Your task to perform on an android device: Show the shopping cart on amazon. Search for "razer deathadder" on amazon, select the first entry, and add it to the cart. Image 0: 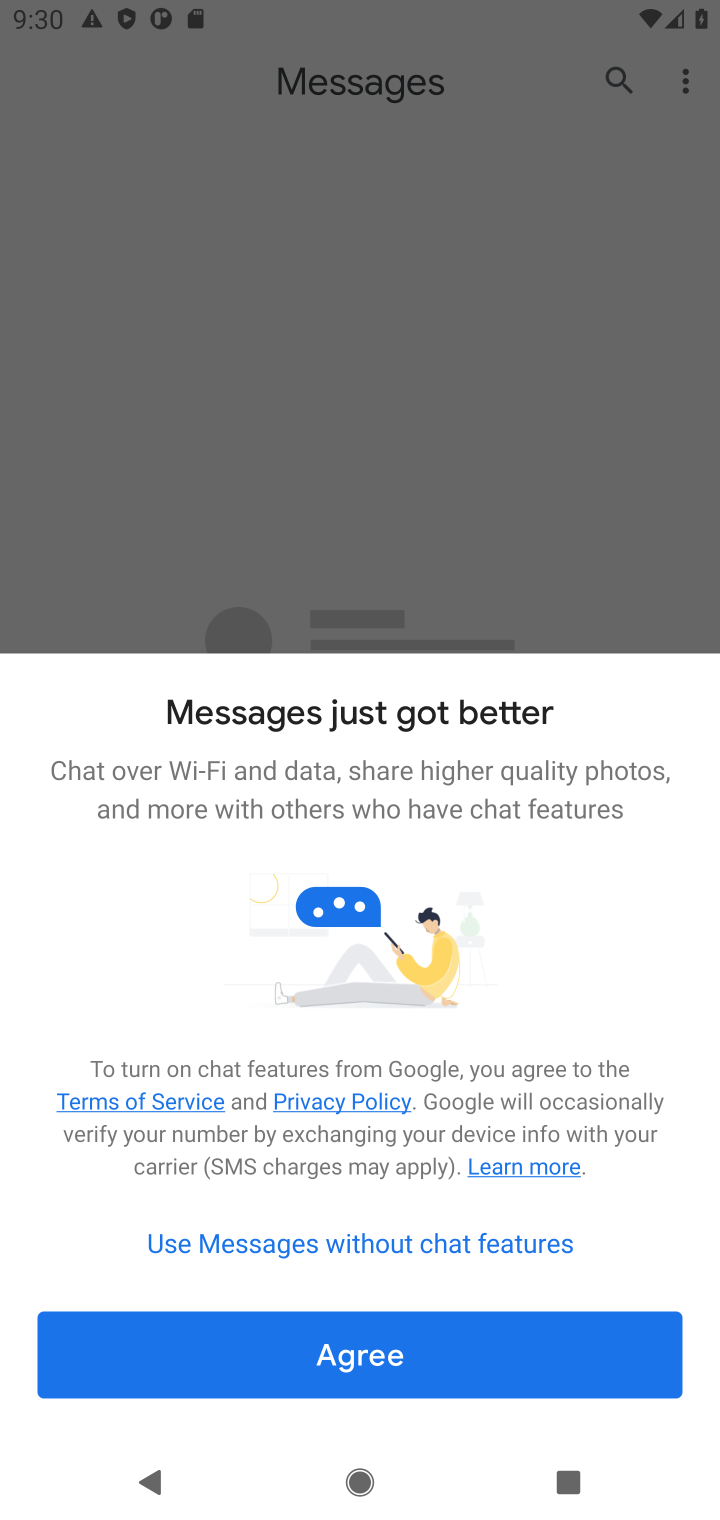
Step 0: press home button
Your task to perform on an android device: Show the shopping cart on amazon. Search for "razer deathadder" on amazon, select the first entry, and add it to the cart. Image 1: 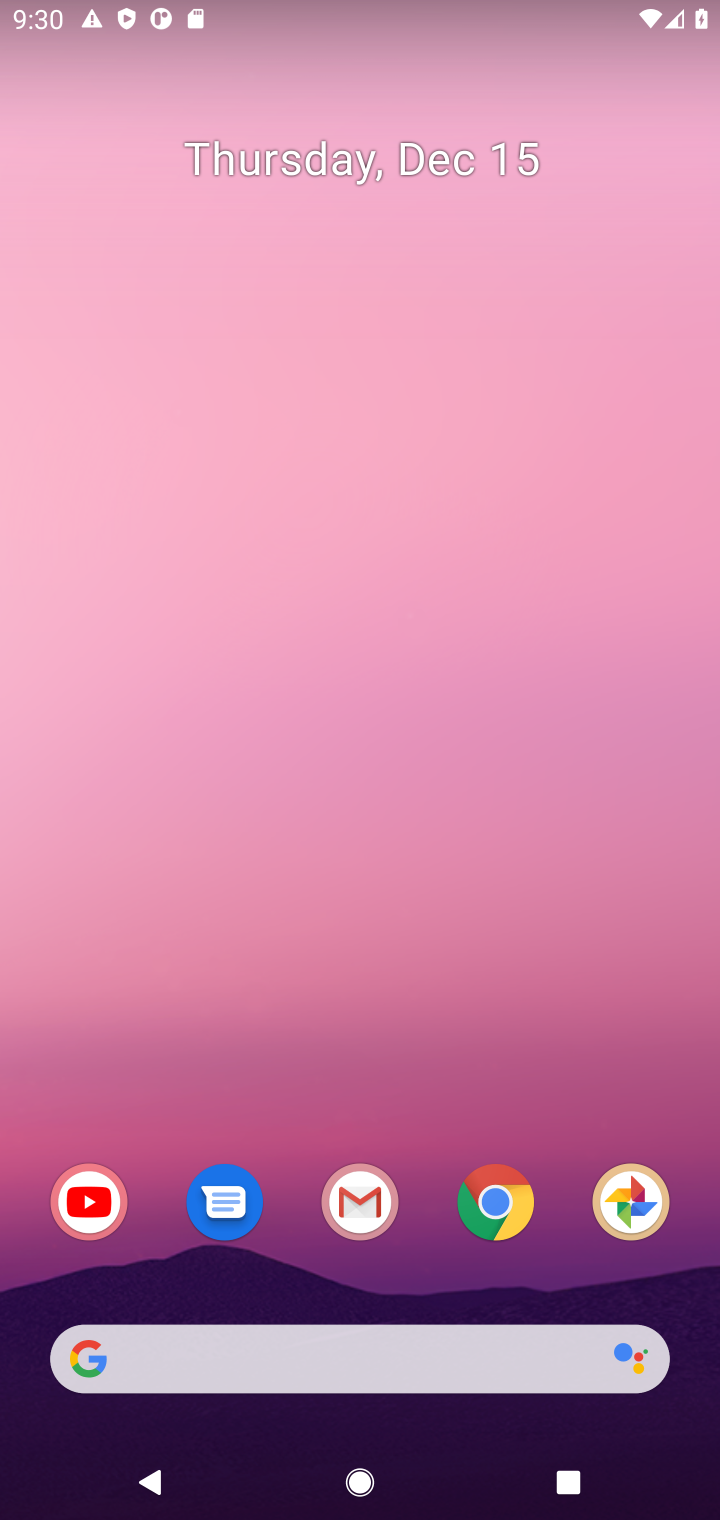
Step 1: click (497, 1199)
Your task to perform on an android device: Show the shopping cart on amazon. Search for "razer deathadder" on amazon, select the first entry, and add it to the cart. Image 2: 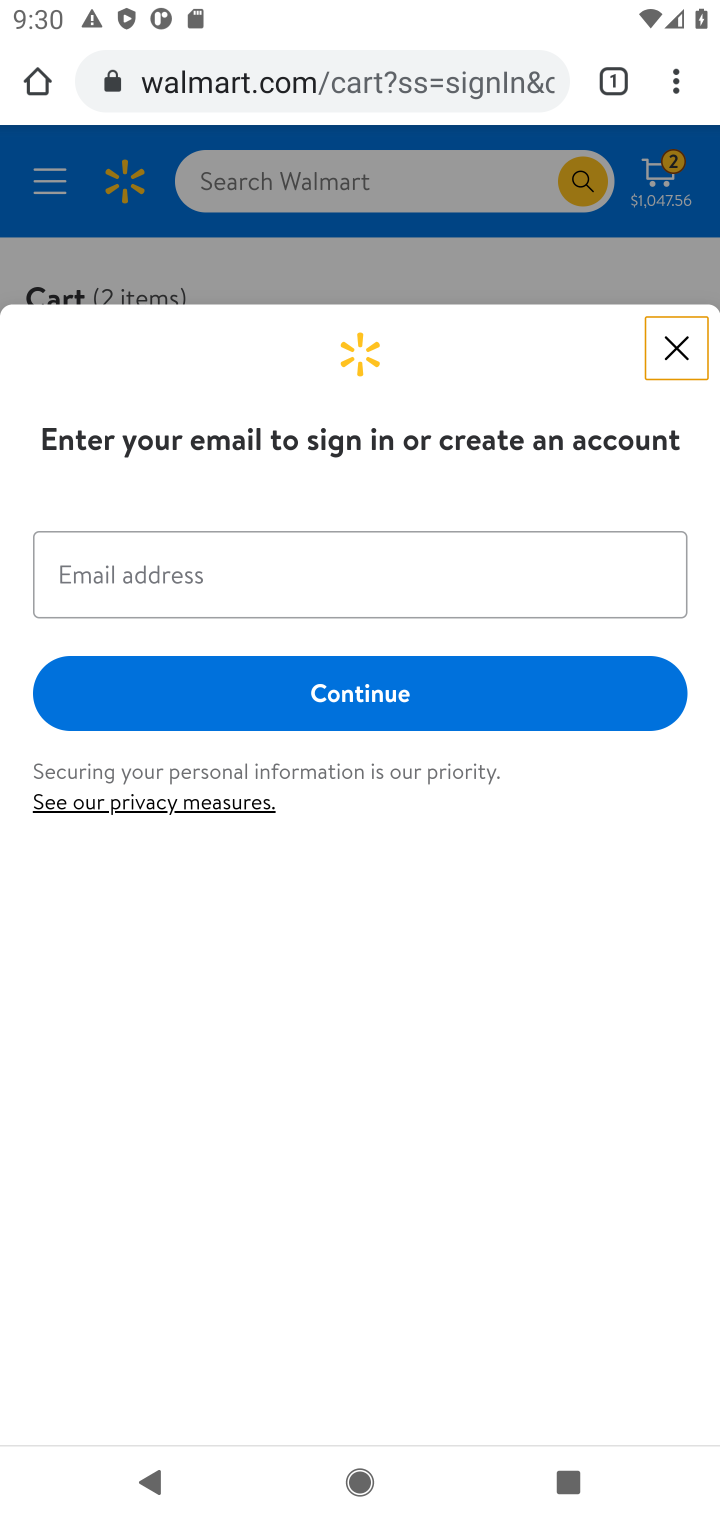
Step 2: click (303, 89)
Your task to perform on an android device: Show the shopping cart on amazon. Search for "razer deathadder" on amazon, select the first entry, and add it to the cart. Image 3: 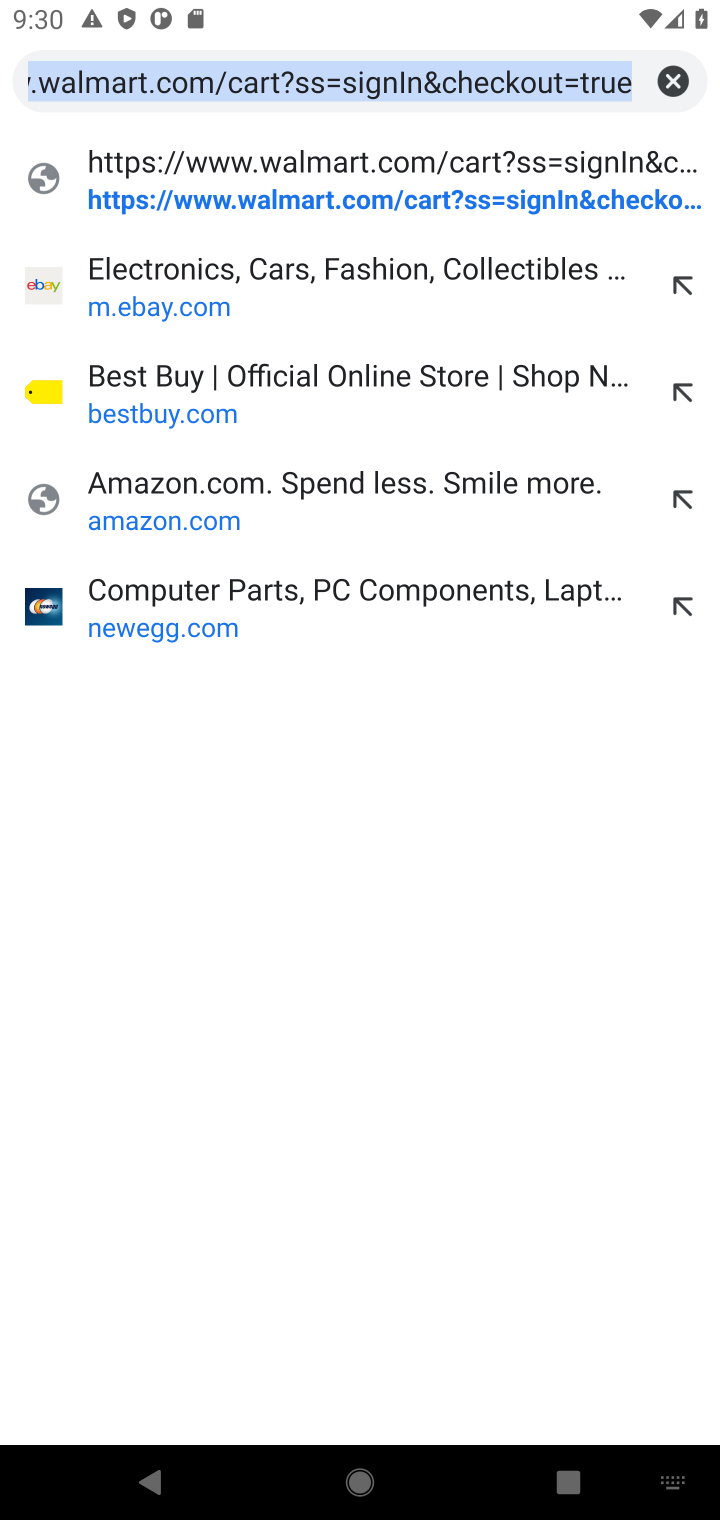
Step 3: click (119, 488)
Your task to perform on an android device: Show the shopping cart on amazon. Search for "razer deathadder" on amazon, select the first entry, and add it to the cart. Image 4: 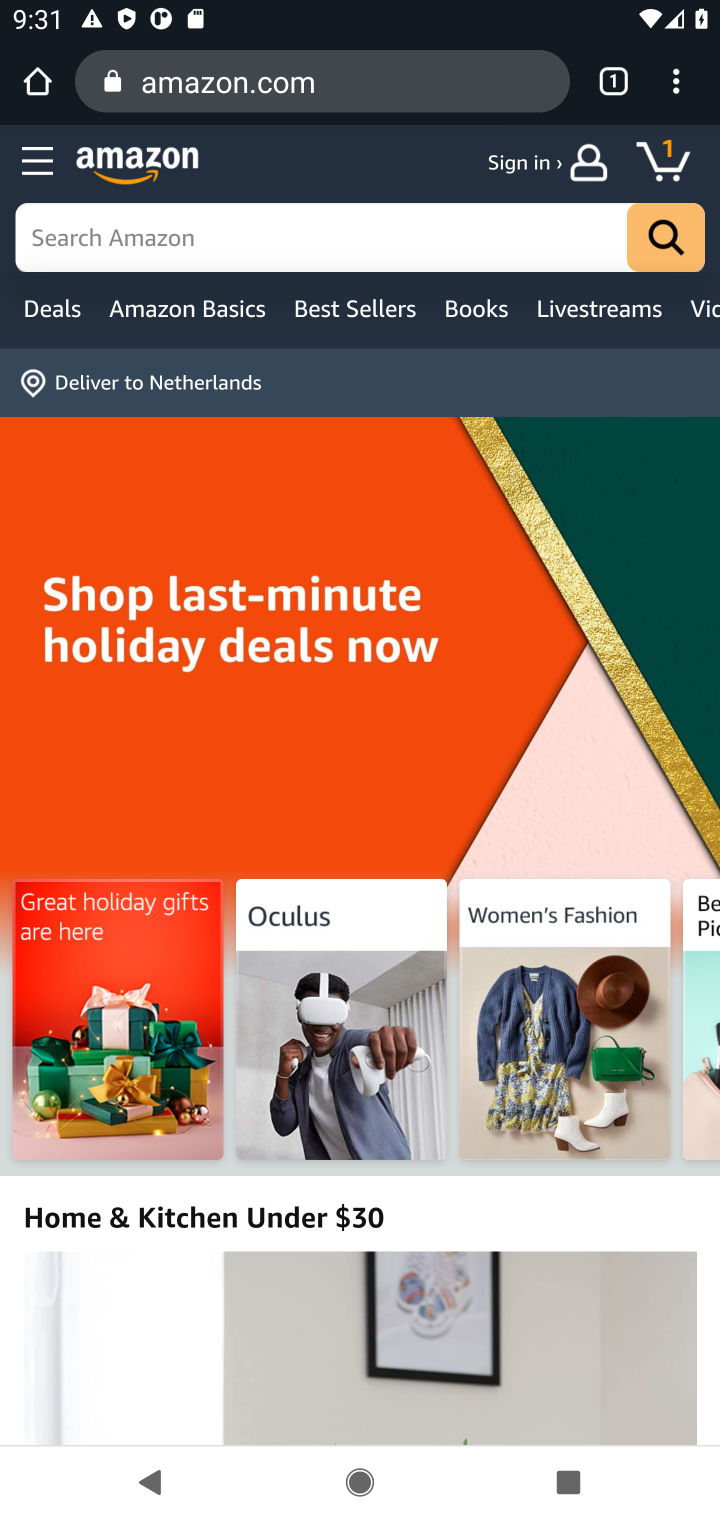
Step 4: click (667, 162)
Your task to perform on an android device: Show the shopping cart on amazon. Search for "razer deathadder" on amazon, select the first entry, and add it to the cart. Image 5: 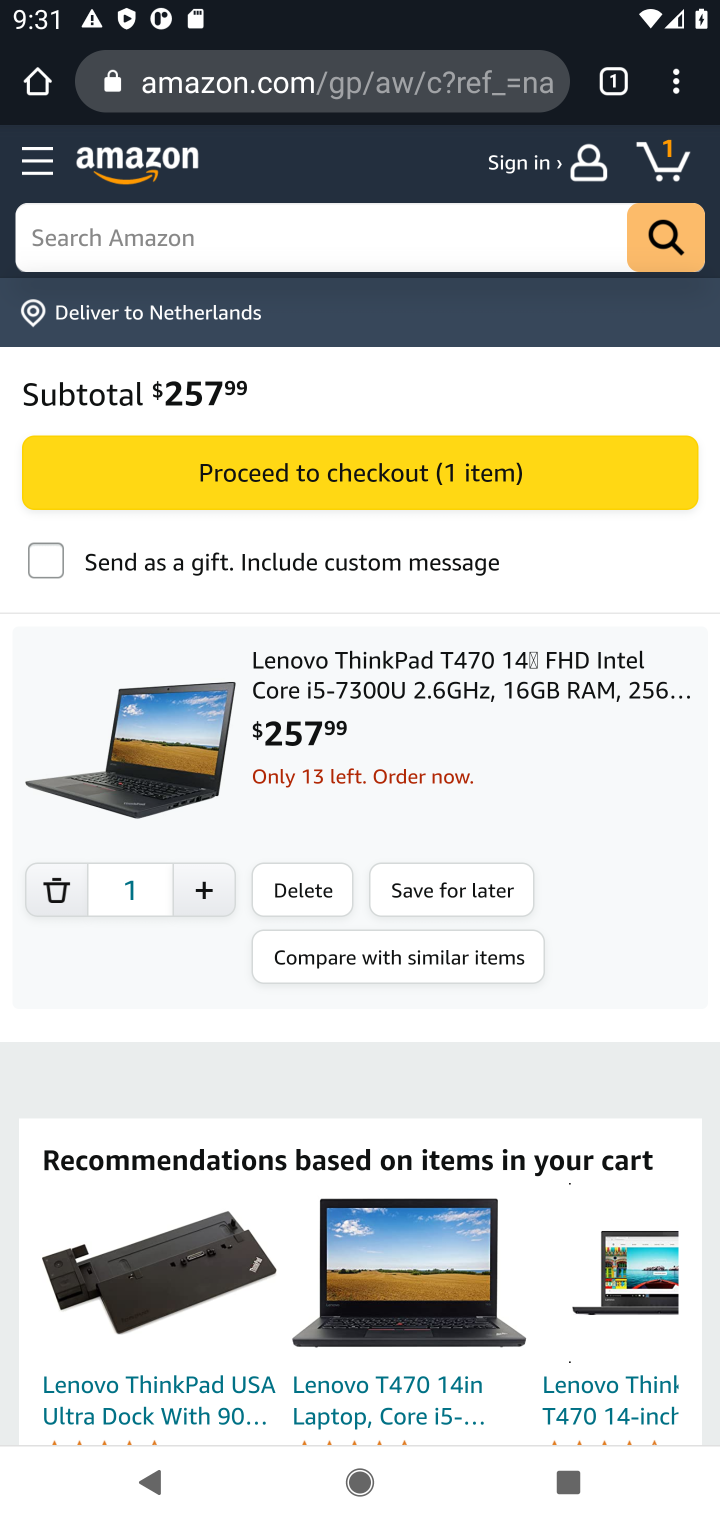
Step 5: click (249, 224)
Your task to perform on an android device: Show the shopping cart on amazon. Search for "razer deathadder" on amazon, select the first entry, and add it to the cart. Image 6: 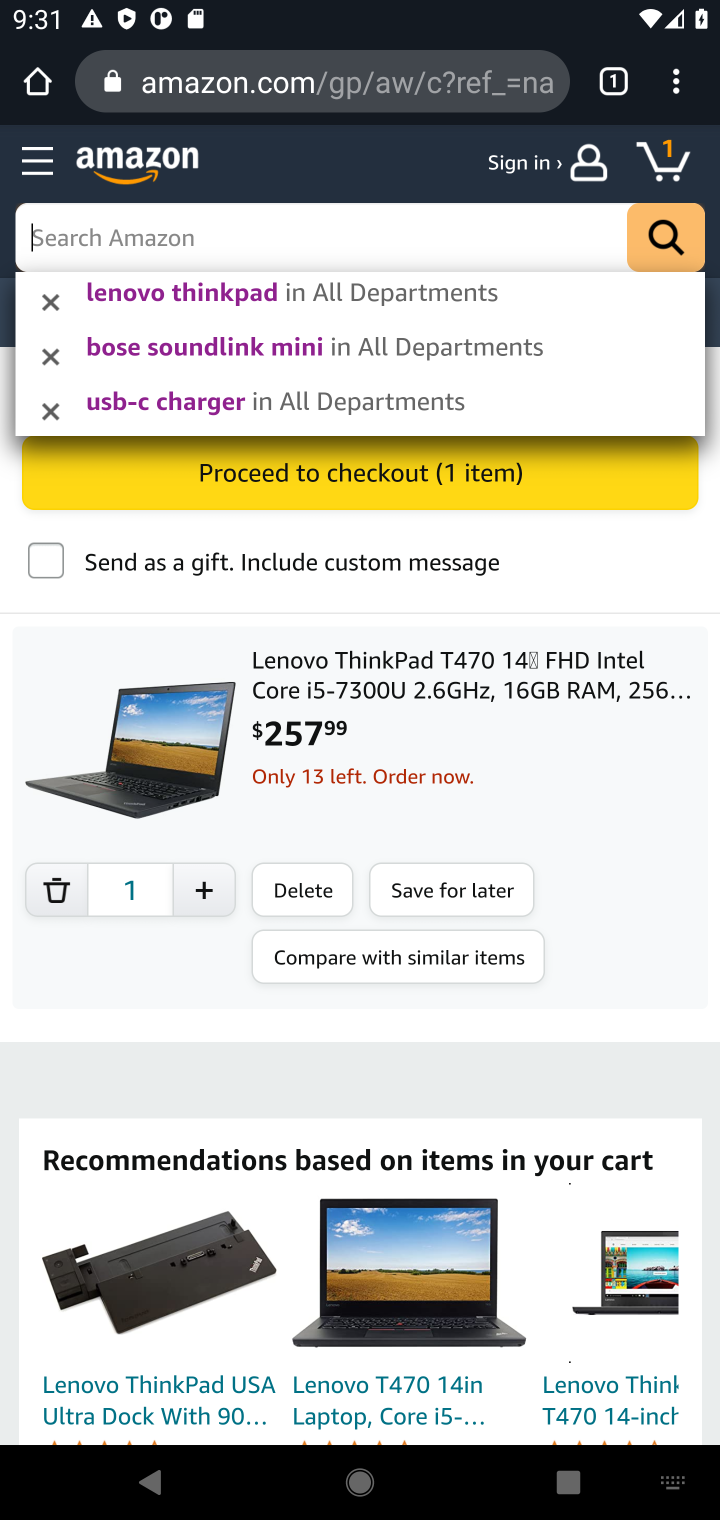
Step 6: type "razer deathadder"
Your task to perform on an android device: Show the shopping cart on amazon. Search for "razer deathadder" on amazon, select the first entry, and add it to the cart. Image 7: 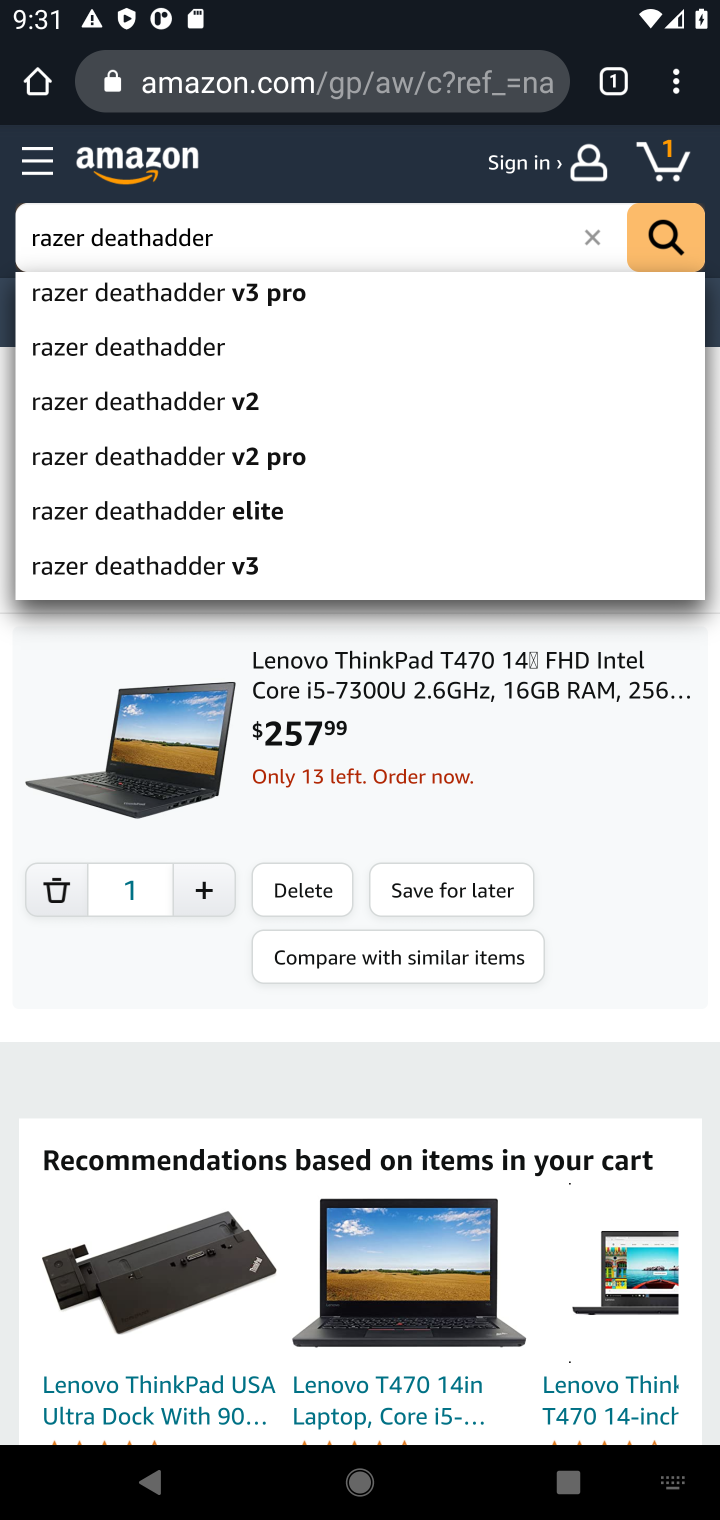
Step 7: click (98, 361)
Your task to perform on an android device: Show the shopping cart on amazon. Search for "razer deathadder" on amazon, select the first entry, and add it to the cart. Image 8: 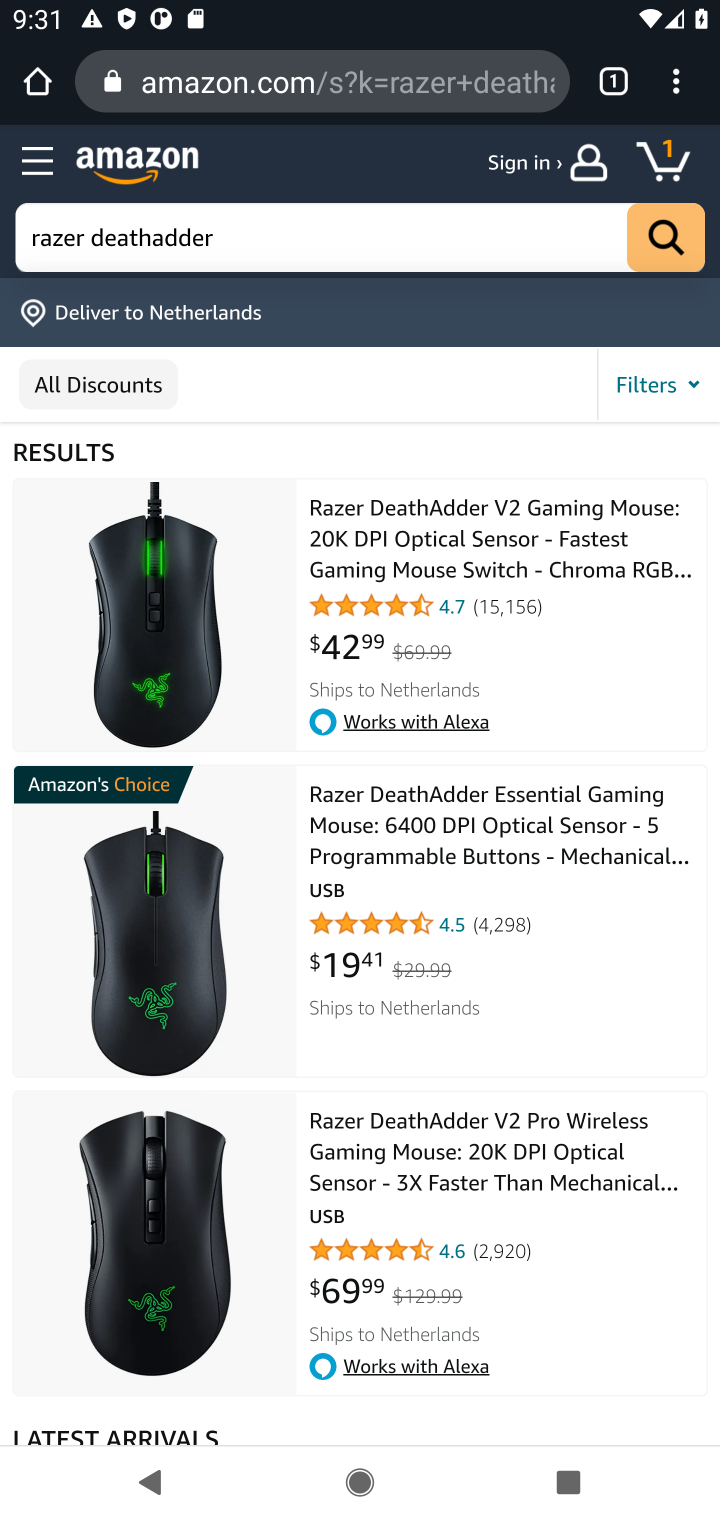
Step 8: click (389, 561)
Your task to perform on an android device: Show the shopping cart on amazon. Search for "razer deathadder" on amazon, select the first entry, and add it to the cart. Image 9: 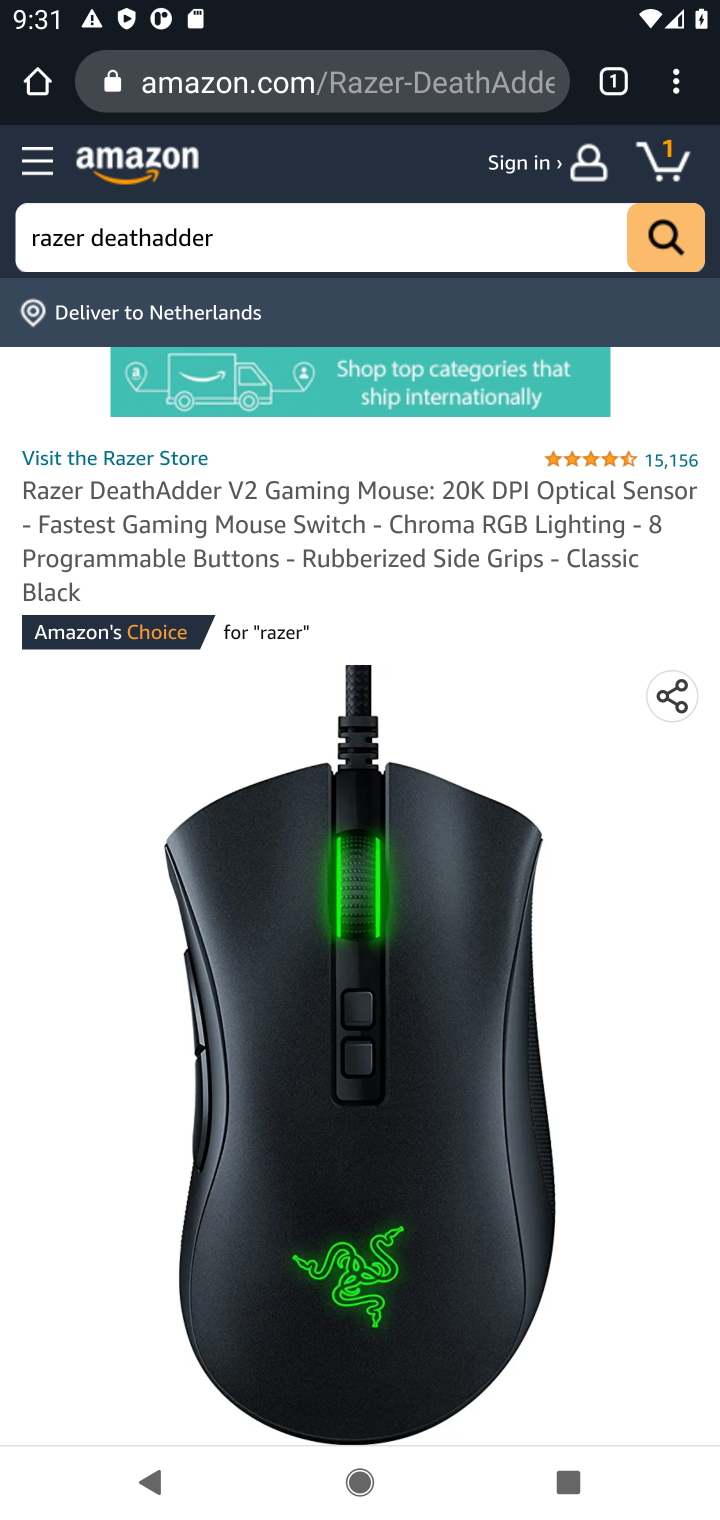
Step 9: drag from (328, 851) to (327, 589)
Your task to perform on an android device: Show the shopping cart on amazon. Search for "razer deathadder" on amazon, select the first entry, and add it to the cart. Image 10: 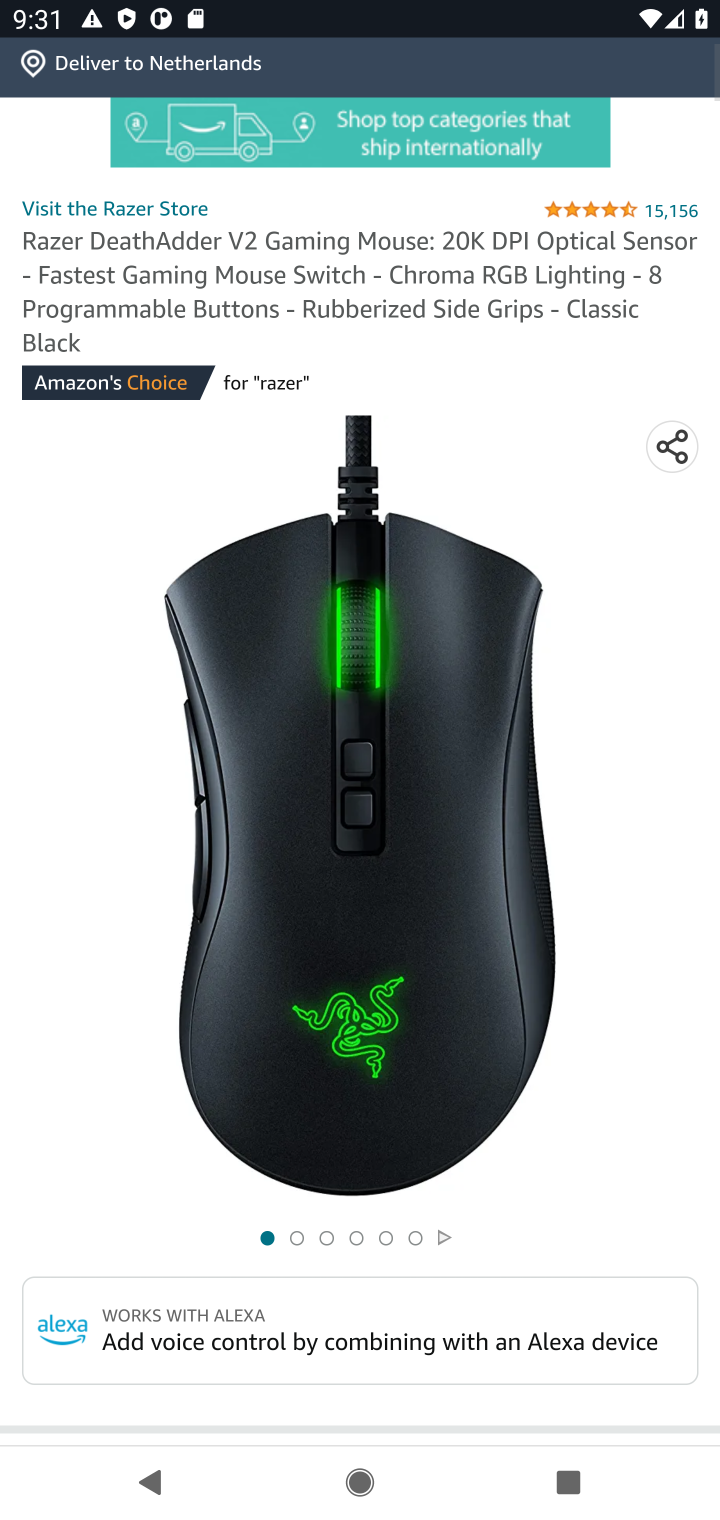
Step 10: drag from (310, 967) to (325, 527)
Your task to perform on an android device: Show the shopping cart on amazon. Search for "razer deathadder" on amazon, select the first entry, and add it to the cart. Image 11: 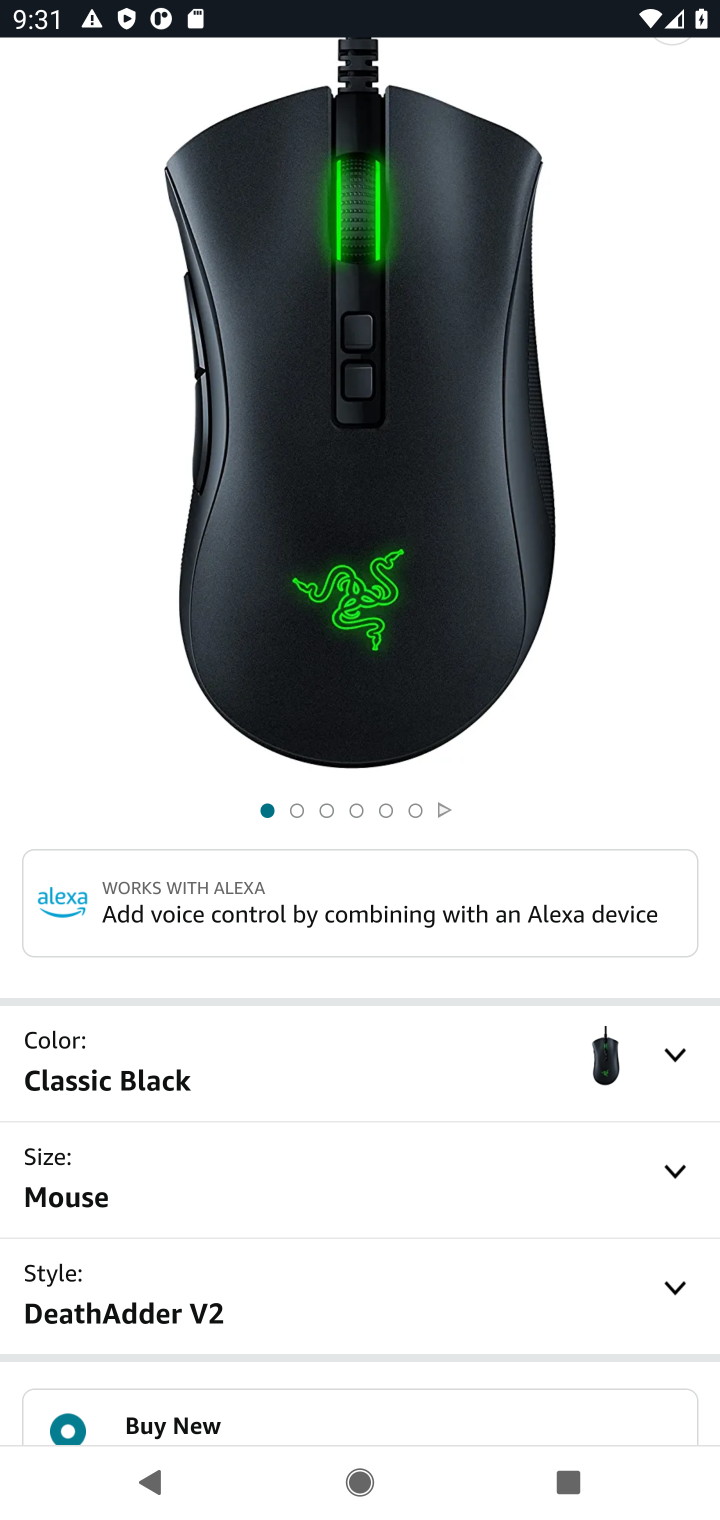
Step 11: drag from (310, 968) to (314, 520)
Your task to perform on an android device: Show the shopping cart on amazon. Search for "razer deathadder" on amazon, select the first entry, and add it to the cart. Image 12: 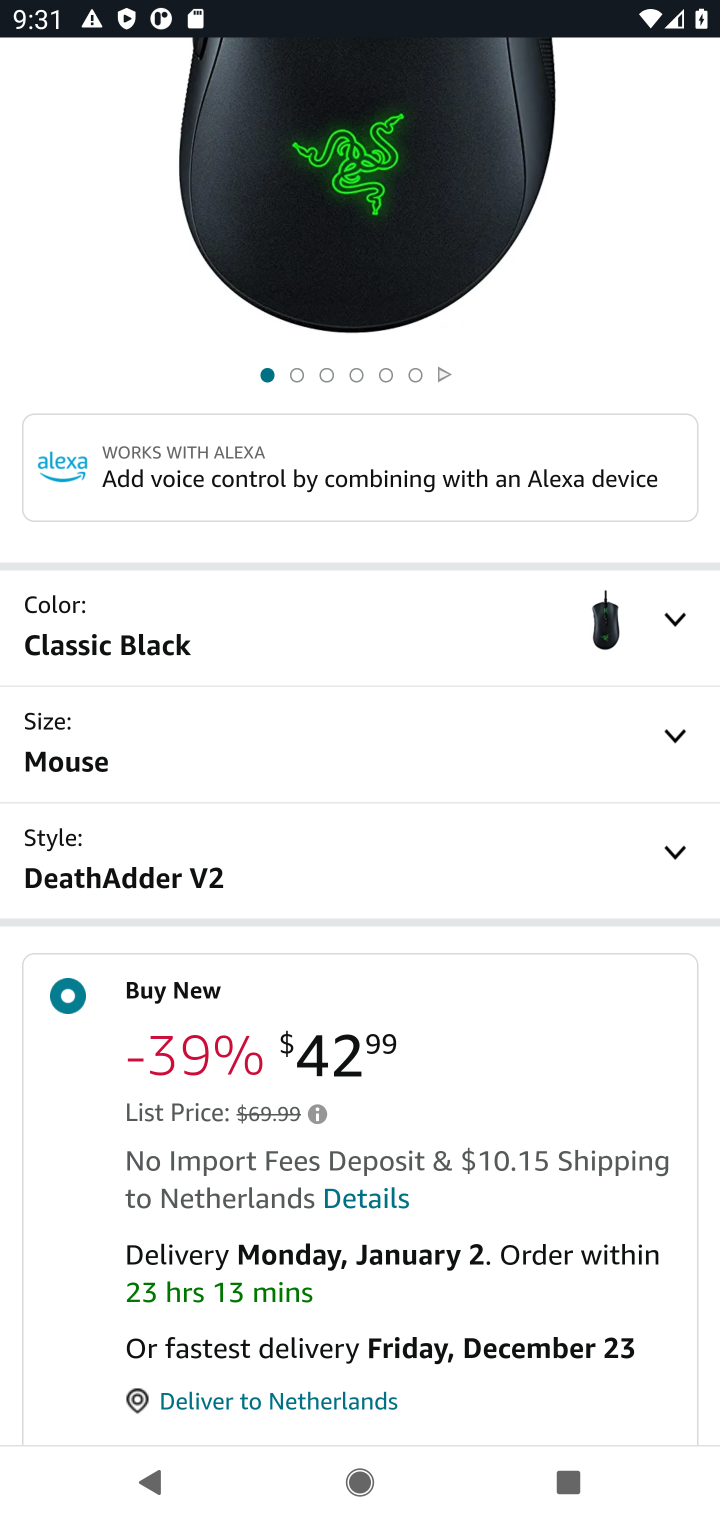
Step 12: drag from (288, 1017) to (323, 501)
Your task to perform on an android device: Show the shopping cart on amazon. Search for "razer deathadder" on amazon, select the first entry, and add it to the cart. Image 13: 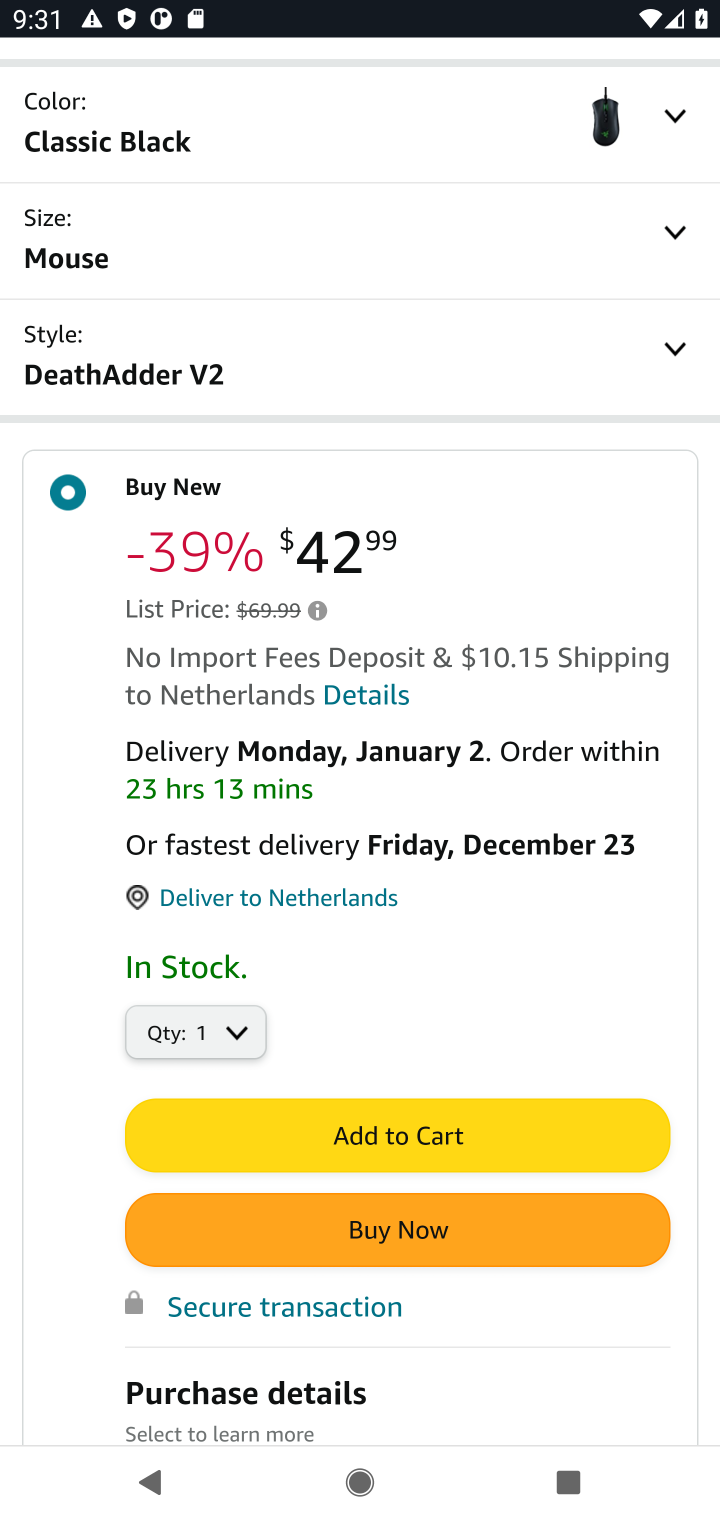
Step 13: click (338, 1133)
Your task to perform on an android device: Show the shopping cart on amazon. Search for "razer deathadder" on amazon, select the first entry, and add it to the cart. Image 14: 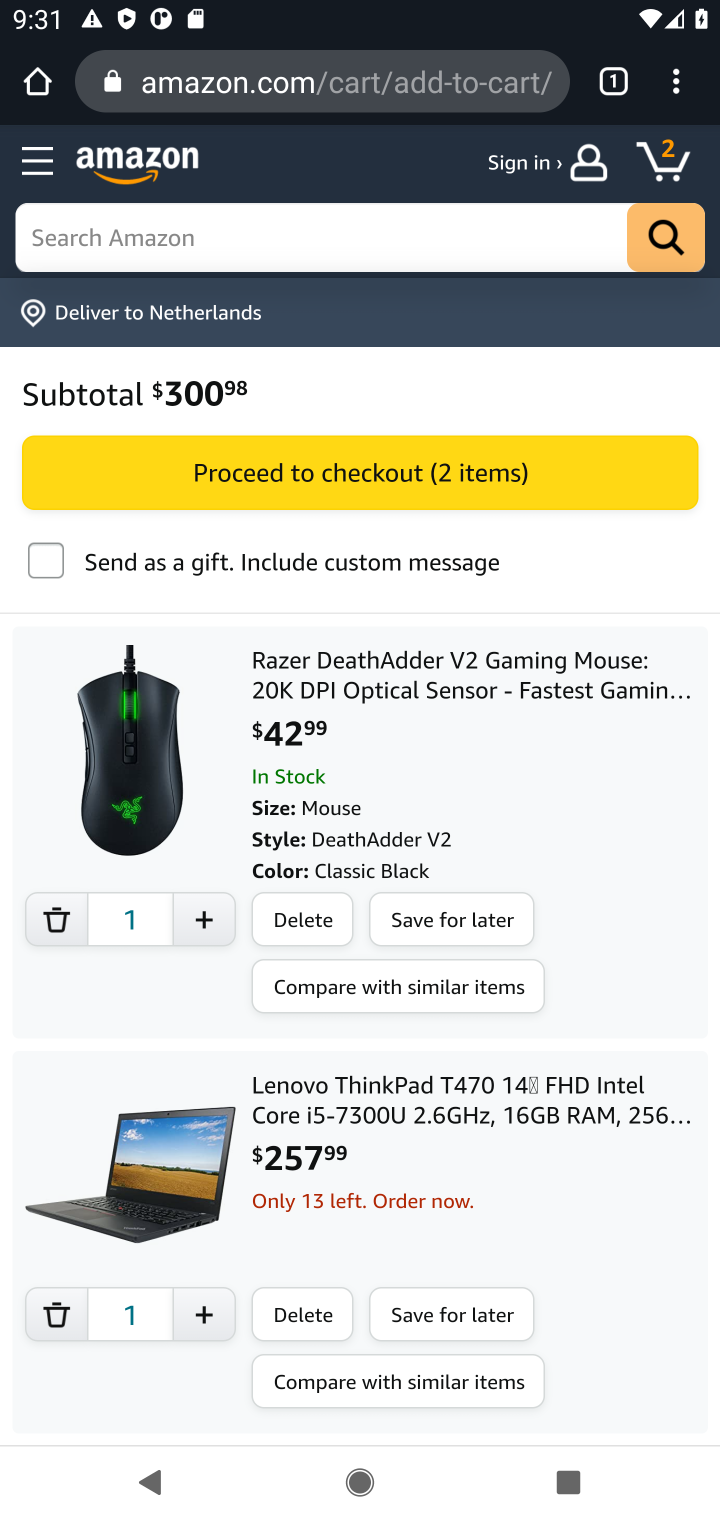
Step 14: task complete